Your task to perform on an android device: refresh tabs in the chrome app Image 0: 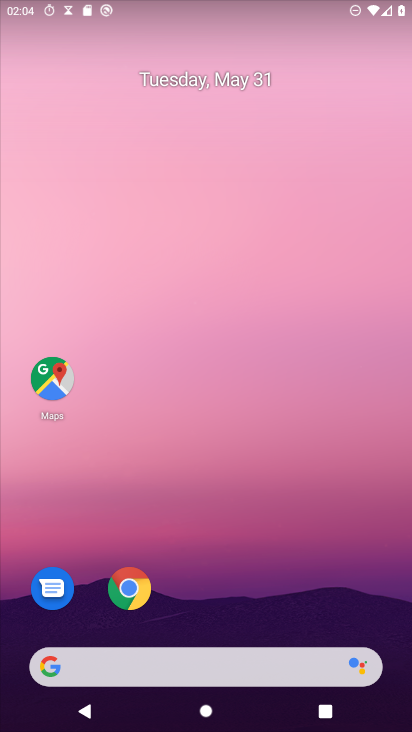
Step 0: drag from (272, 653) to (267, 4)
Your task to perform on an android device: refresh tabs in the chrome app Image 1: 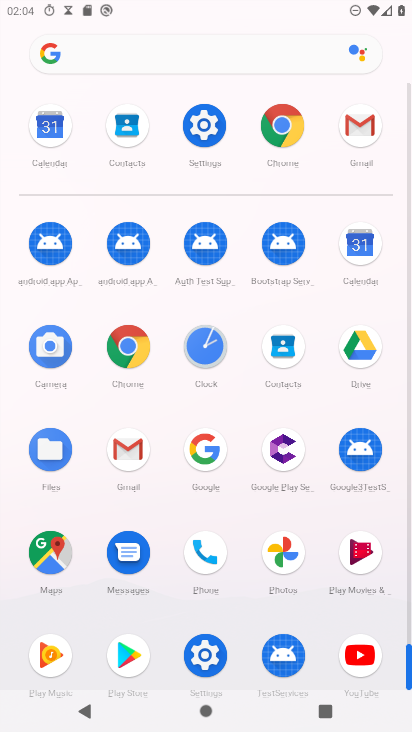
Step 1: click (125, 347)
Your task to perform on an android device: refresh tabs in the chrome app Image 2: 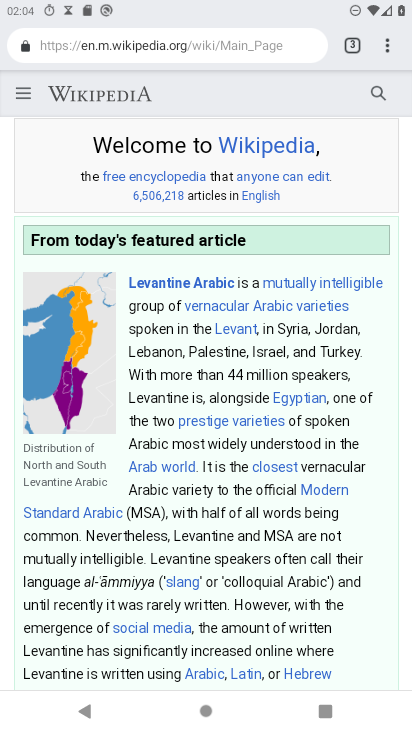
Step 2: click (387, 41)
Your task to perform on an android device: refresh tabs in the chrome app Image 3: 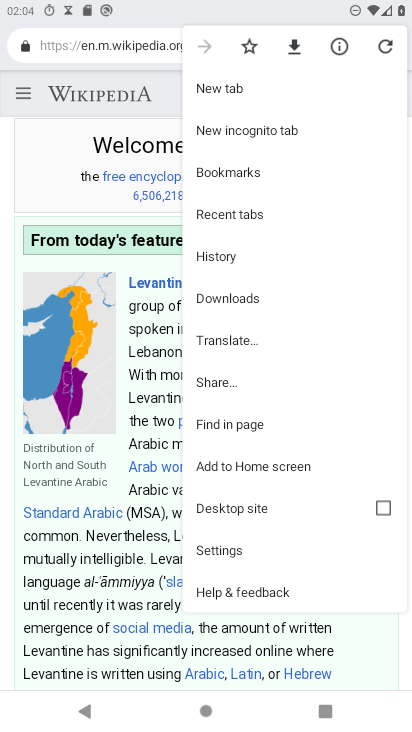
Step 3: click (287, 97)
Your task to perform on an android device: refresh tabs in the chrome app Image 4: 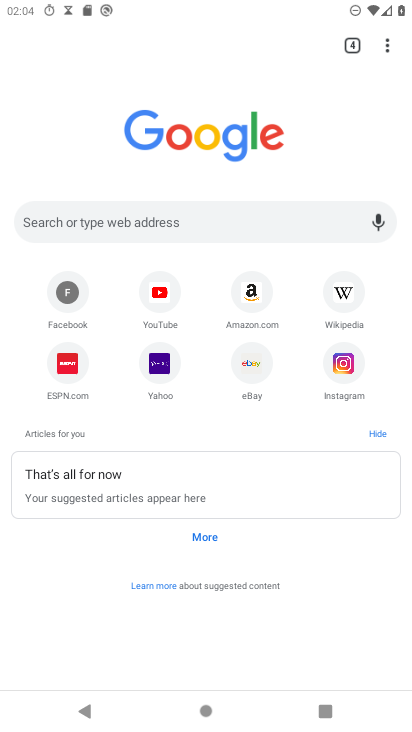
Step 4: task complete